Your task to perform on an android device: Open Youtube and go to the subscriptions tab Image 0: 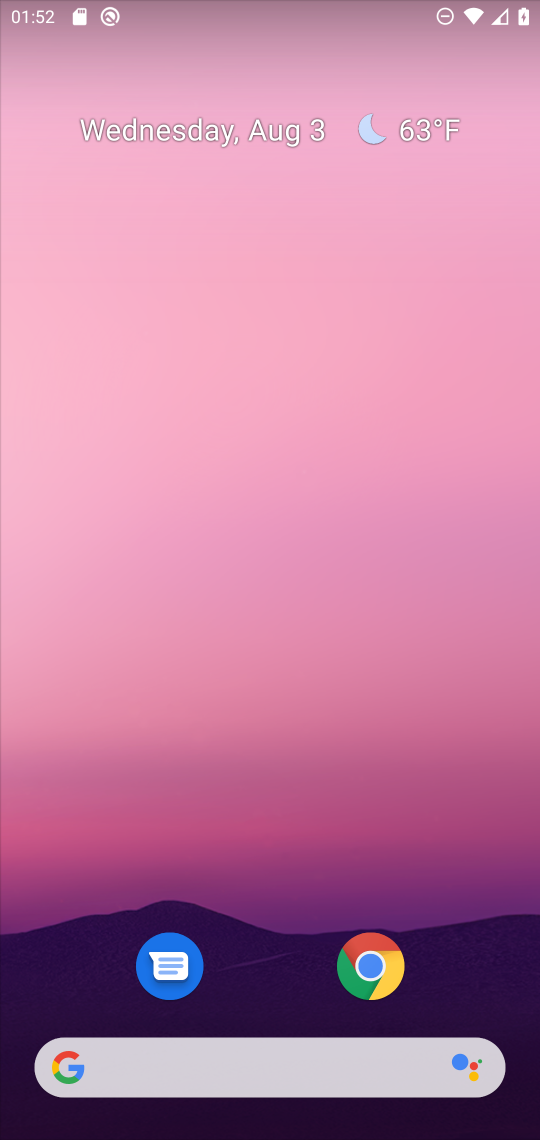
Step 0: drag from (288, 935) to (269, 512)
Your task to perform on an android device: Open Youtube and go to the subscriptions tab Image 1: 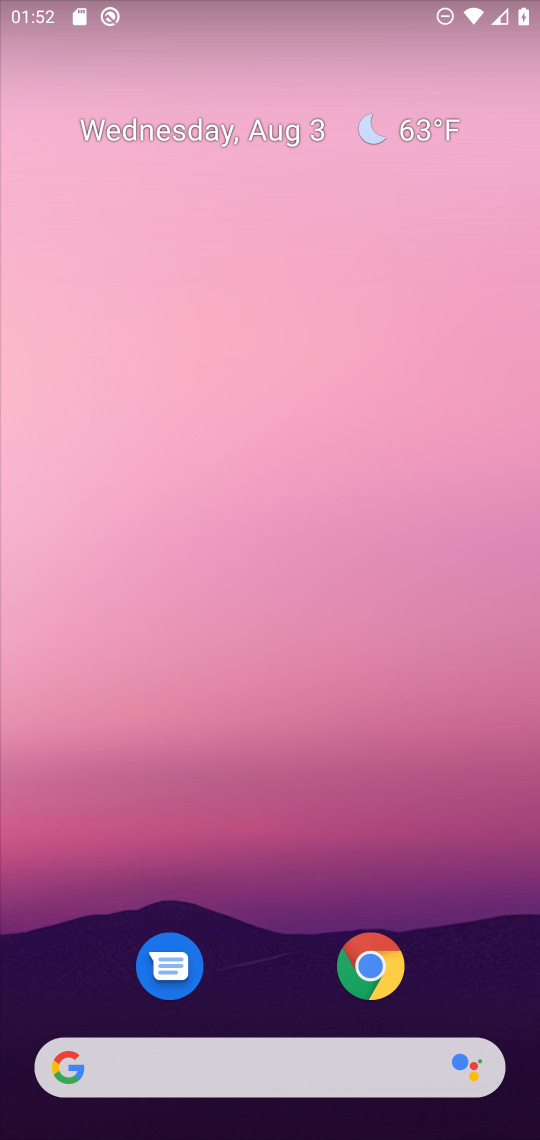
Step 1: drag from (281, 964) to (283, 330)
Your task to perform on an android device: Open Youtube and go to the subscriptions tab Image 2: 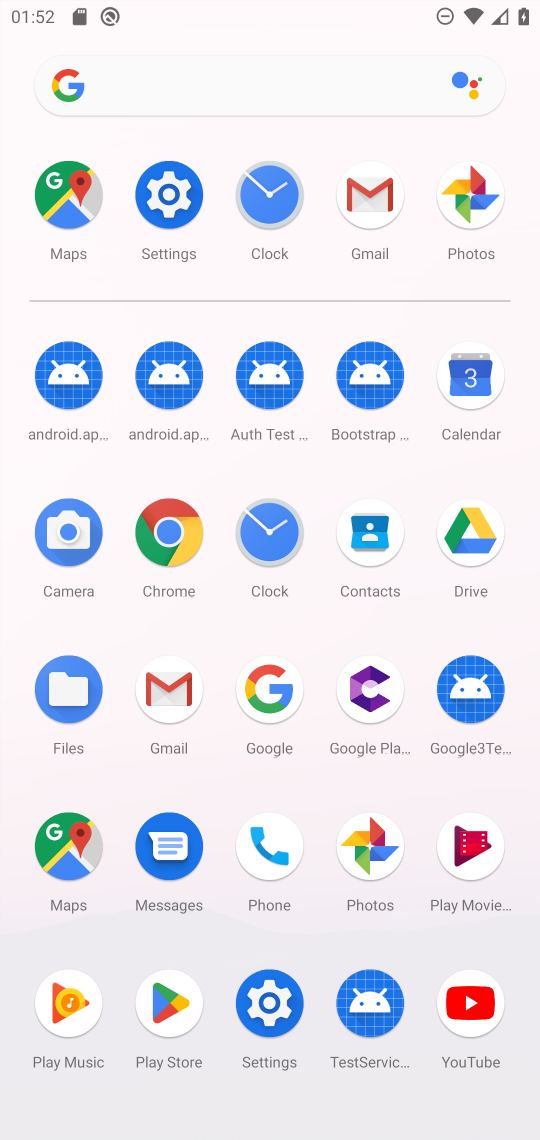
Step 2: click (465, 1022)
Your task to perform on an android device: Open Youtube and go to the subscriptions tab Image 3: 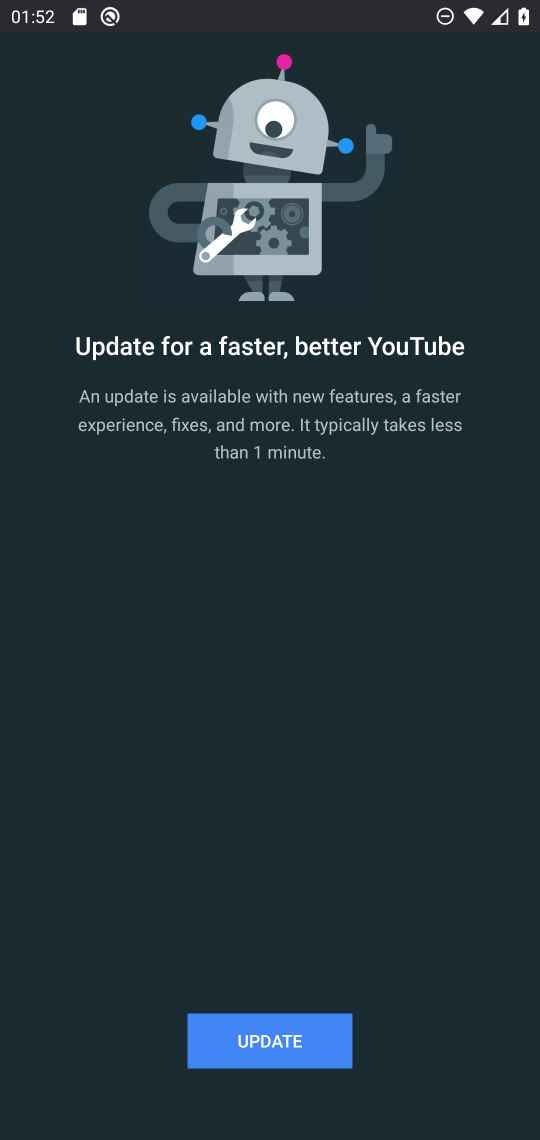
Step 3: click (301, 1041)
Your task to perform on an android device: Open Youtube and go to the subscriptions tab Image 4: 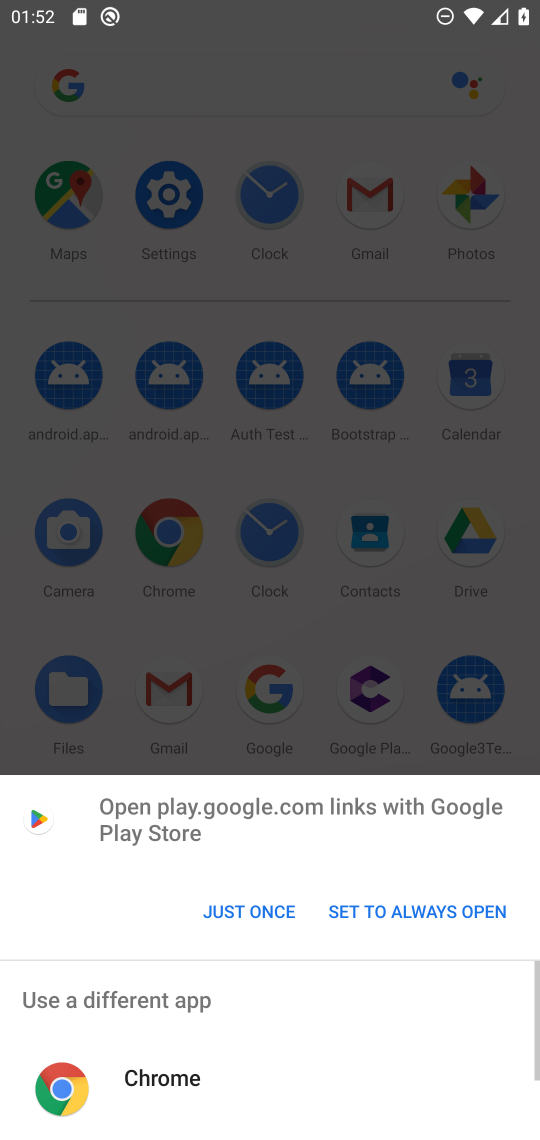
Step 4: click (220, 900)
Your task to perform on an android device: Open Youtube and go to the subscriptions tab Image 5: 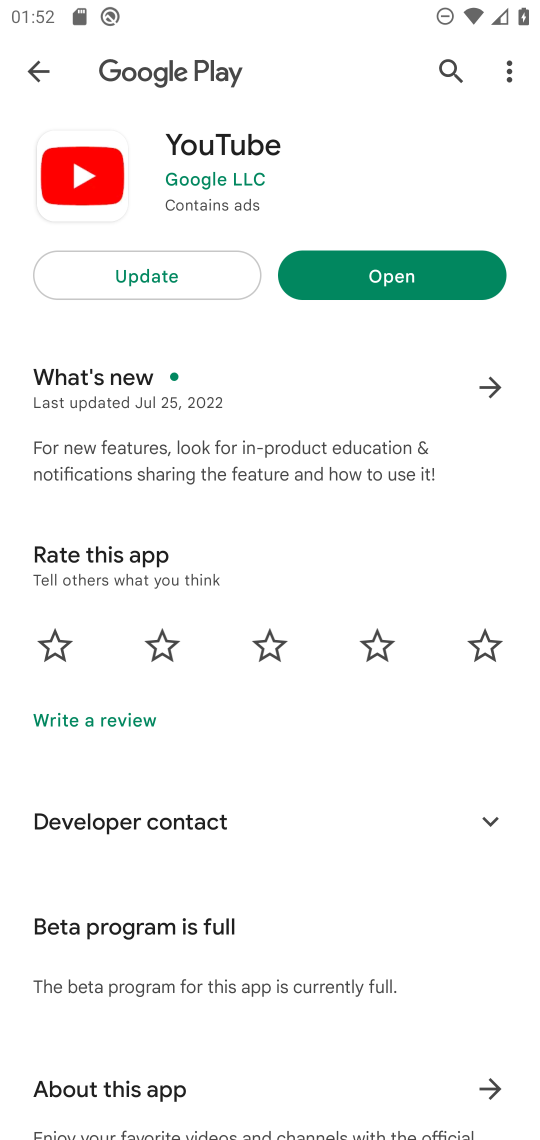
Step 5: click (216, 282)
Your task to perform on an android device: Open Youtube and go to the subscriptions tab Image 6: 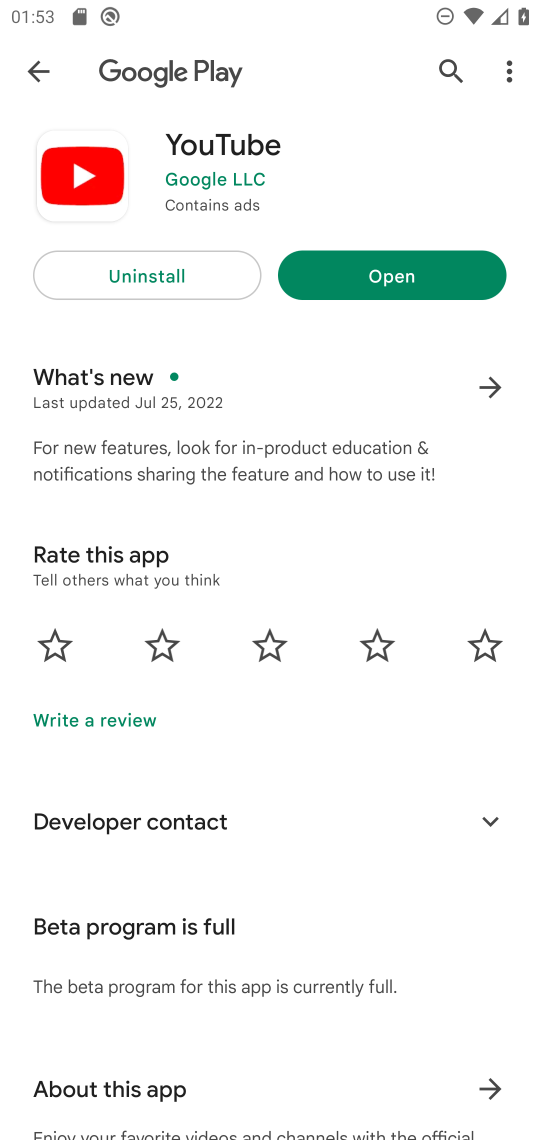
Step 6: click (359, 271)
Your task to perform on an android device: Open Youtube and go to the subscriptions tab Image 7: 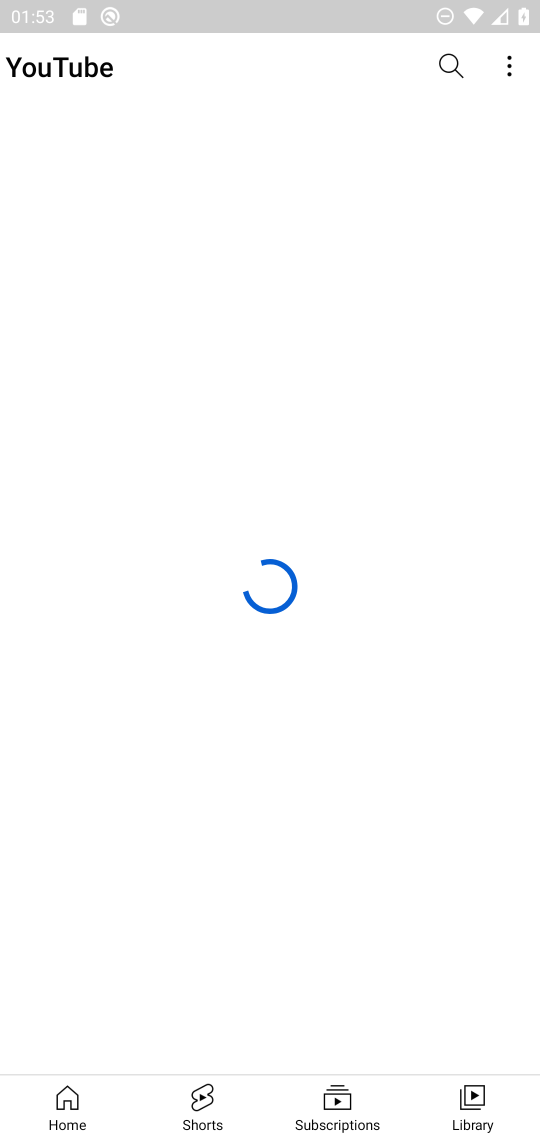
Step 7: click (330, 1099)
Your task to perform on an android device: Open Youtube and go to the subscriptions tab Image 8: 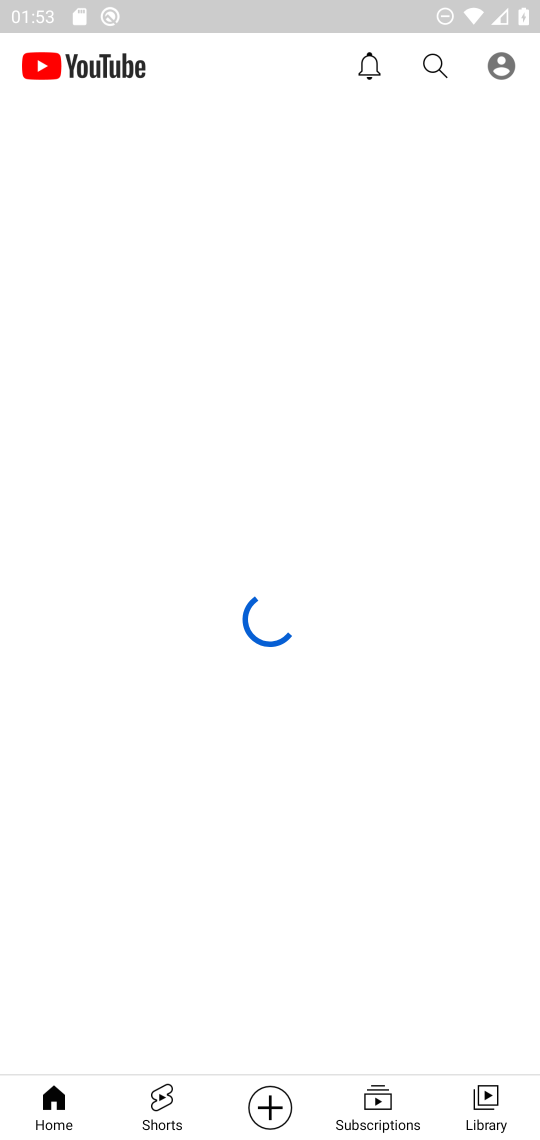
Step 8: click (383, 1115)
Your task to perform on an android device: Open Youtube and go to the subscriptions tab Image 9: 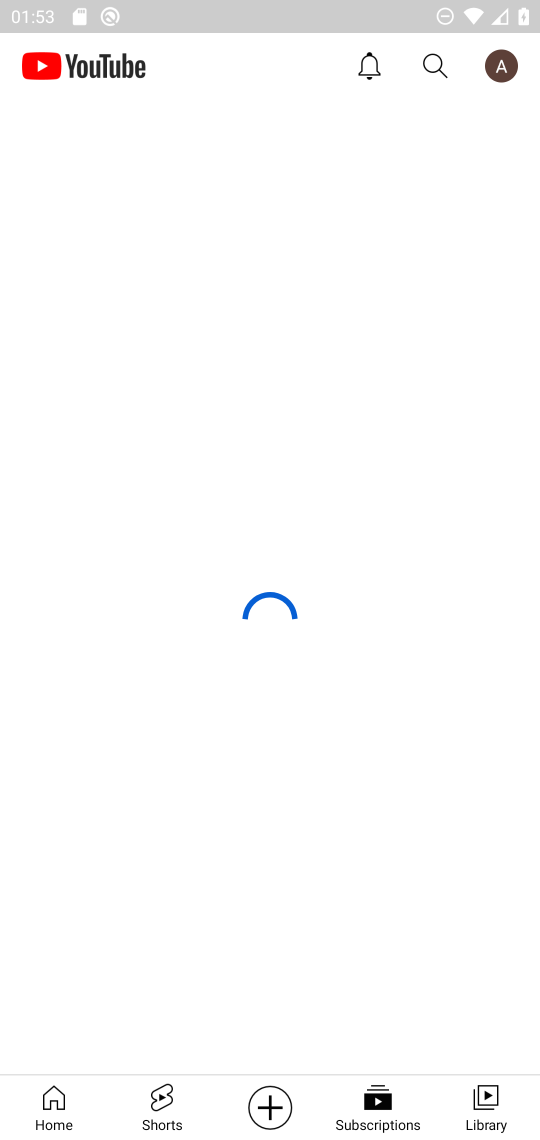
Step 9: task complete